Your task to perform on an android device: visit the assistant section in the google photos Image 0: 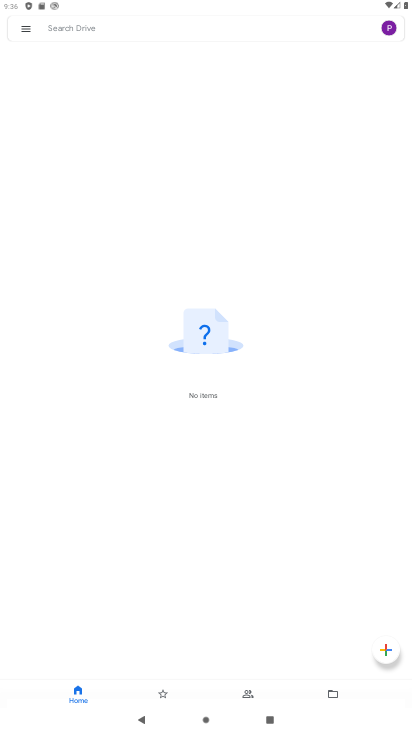
Step 0: press home button
Your task to perform on an android device: visit the assistant section in the google photos Image 1: 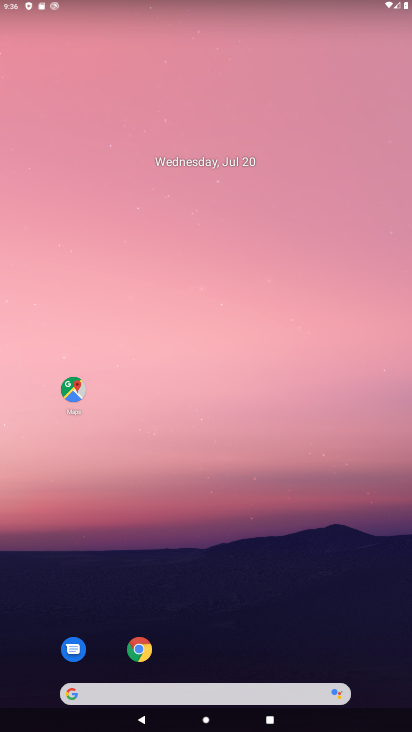
Step 1: drag from (281, 634) to (253, 315)
Your task to perform on an android device: visit the assistant section in the google photos Image 2: 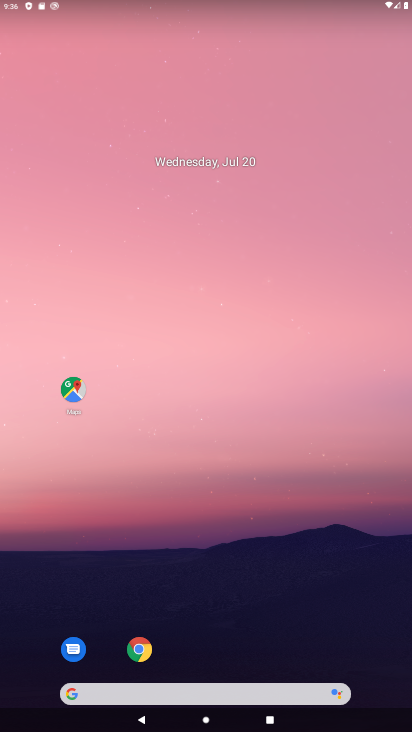
Step 2: drag from (282, 589) to (238, 153)
Your task to perform on an android device: visit the assistant section in the google photos Image 3: 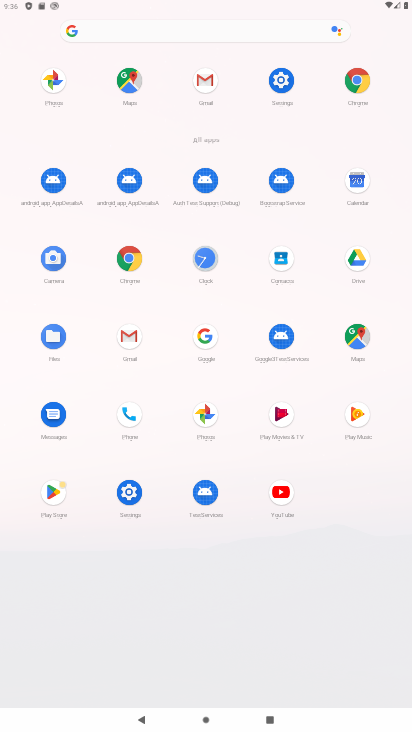
Step 3: click (201, 415)
Your task to perform on an android device: visit the assistant section in the google photos Image 4: 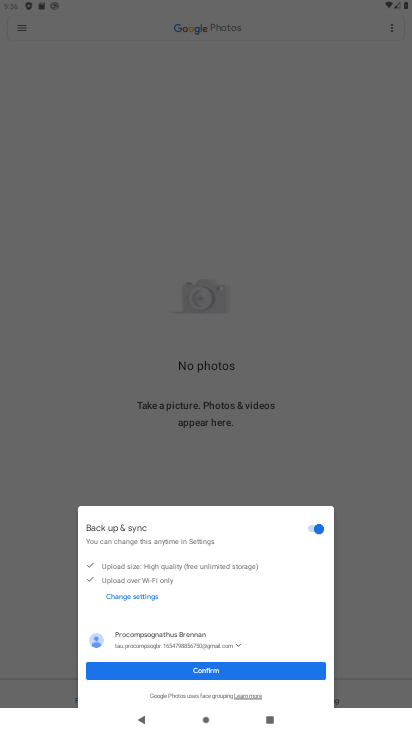
Step 4: click (207, 675)
Your task to perform on an android device: visit the assistant section in the google photos Image 5: 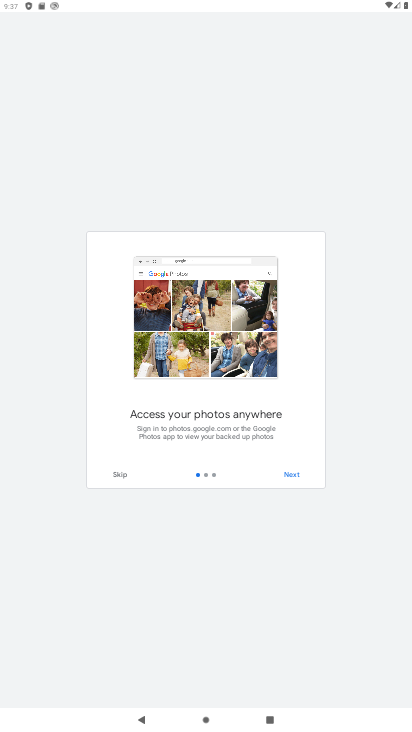
Step 5: click (288, 470)
Your task to perform on an android device: visit the assistant section in the google photos Image 6: 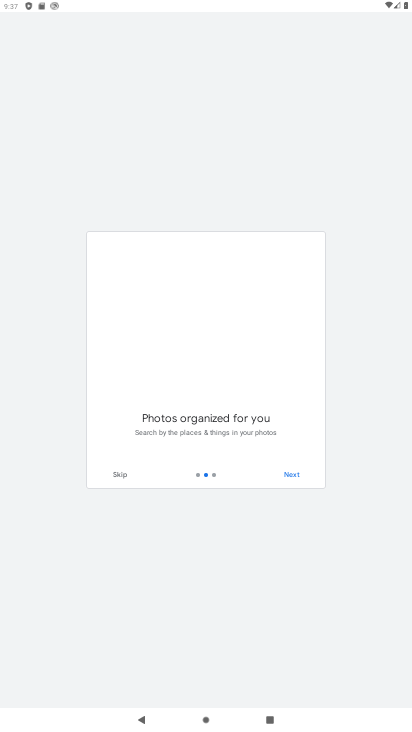
Step 6: click (288, 470)
Your task to perform on an android device: visit the assistant section in the google photos Image 7: 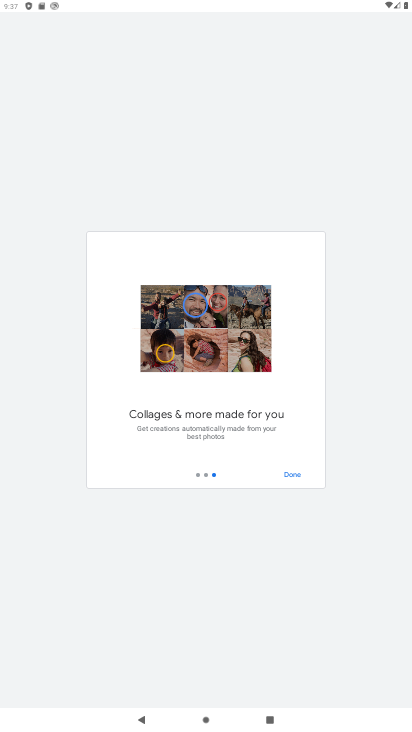
Step 7: click (288, 470)
Your task to perform on an android device: visit the assistant section in the google photos Image 8: 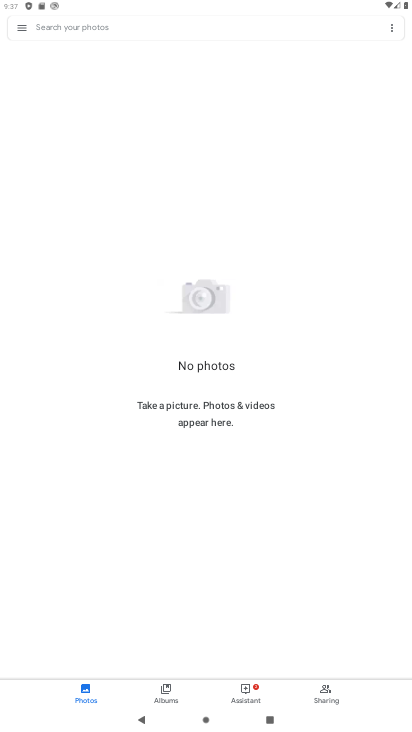
Step 8: click (250, 692)
Your task to perform on an android device: visit the assistant section in the google photos Image 9: 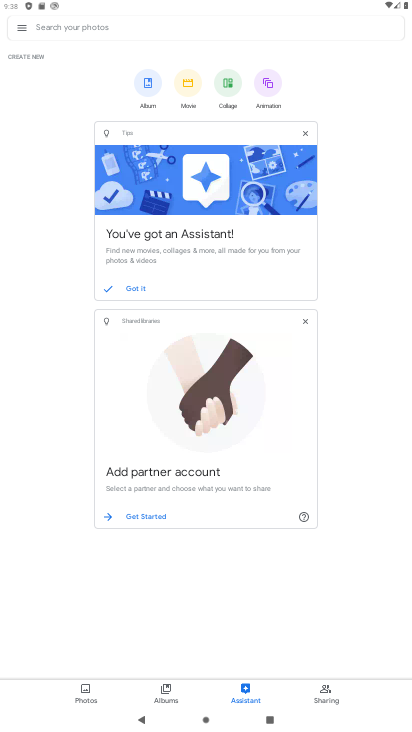
Step 9: task complete